Your task to perform on an android device: turn on notifications settings in the gmail app Image 0: 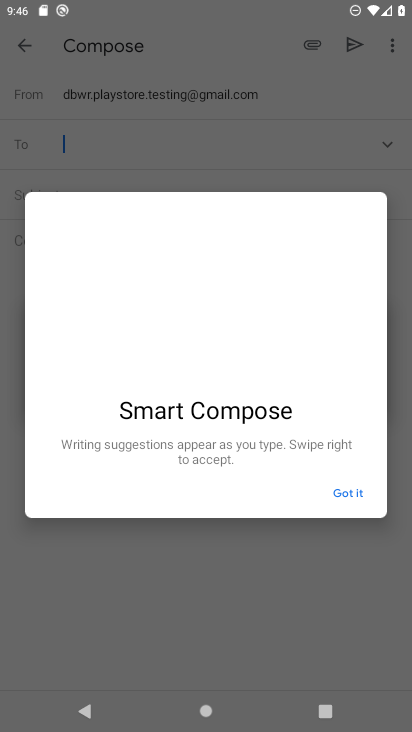
Step 0: press home button
Your task to perform on an android device: turn on notifications settings in the gmail app Image 1: 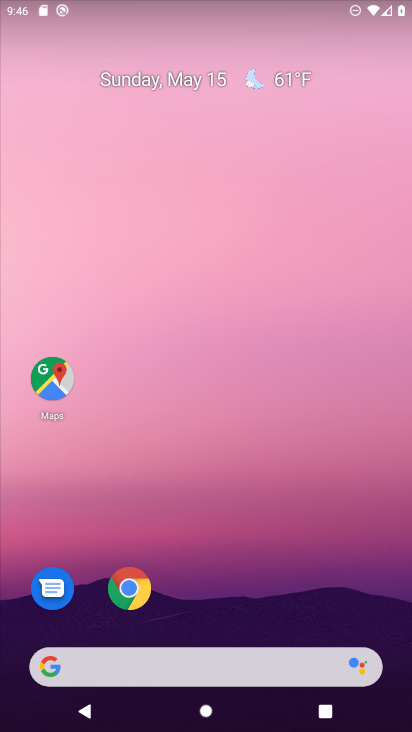
Step 1: drag from (221, 524) to (347, 5)
Your task to perform on an android device: turn on notifications settings in the gmail app Image 2: 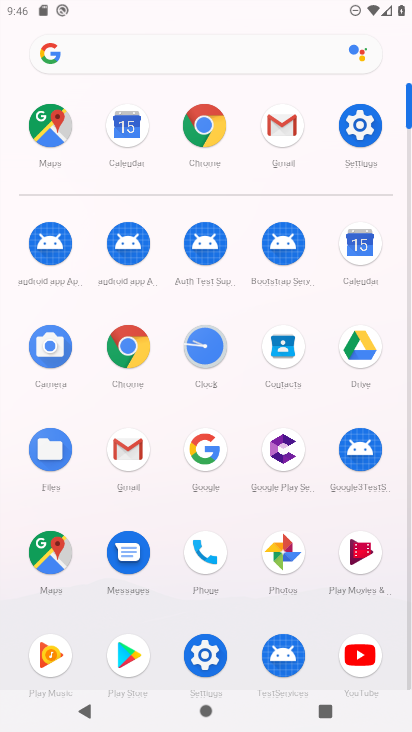
Step 2: click (280, 132)
Your task to perform on an android device: turn on notifications settings in the gmail app Image 3: 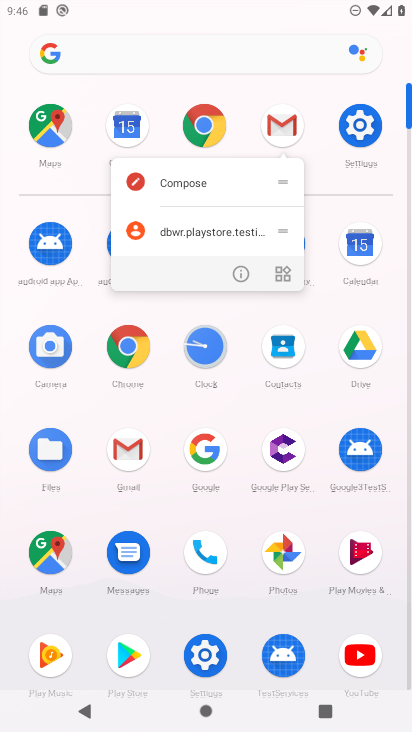
Step 3: click (118, 449)
Your task to perform on an android device: turn on notifications settings in the gmail app Image 4: 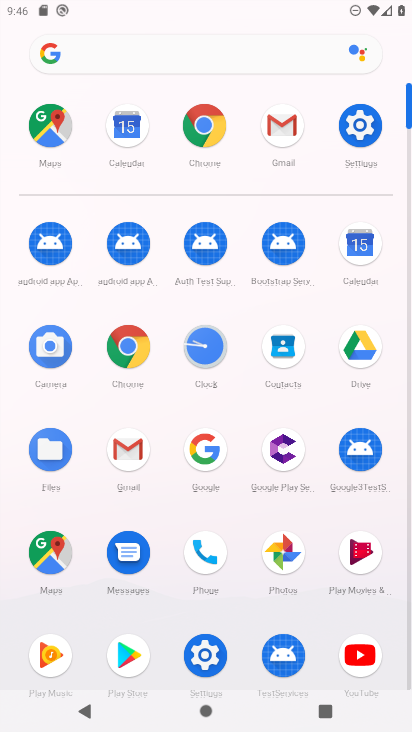
Step 4: click (123, 450)
Your task to perform on an android device: turn on notifications settings in the gmail app Image 5: 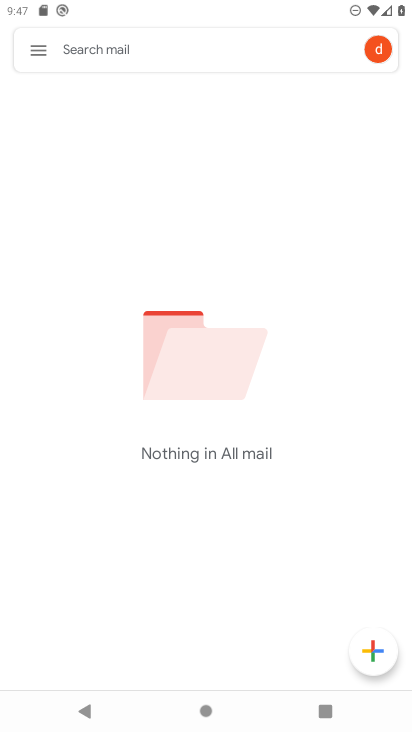
Step 5: click (40, 47)
Your task to perform on an android device: turn on notifications settings in the gmail app Image 6: 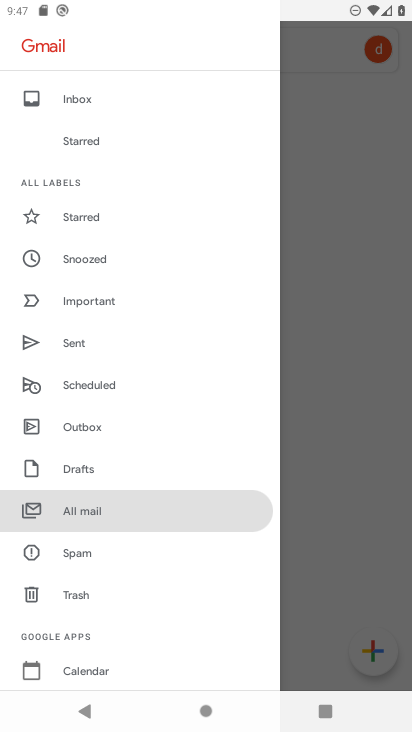
Step 6: drag from (120, 638) to (185, 327)
Your task to perform on an android device: turn on notifications settings in the gmail app Image 7: 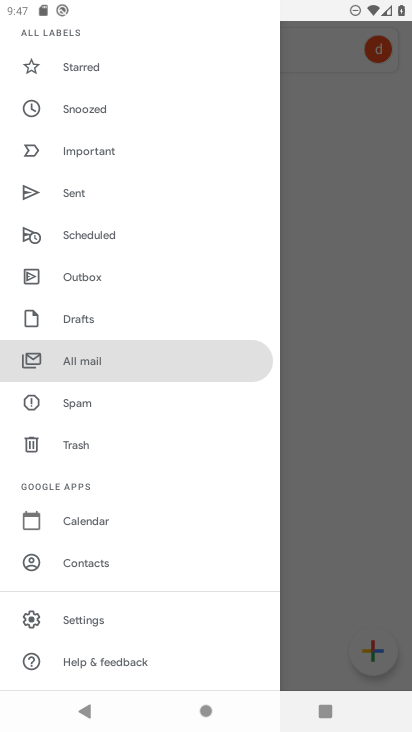
Step 7: click (103, 616)
Your task to perform on an android device: turn on notifications settings in the gmail app Image 8: 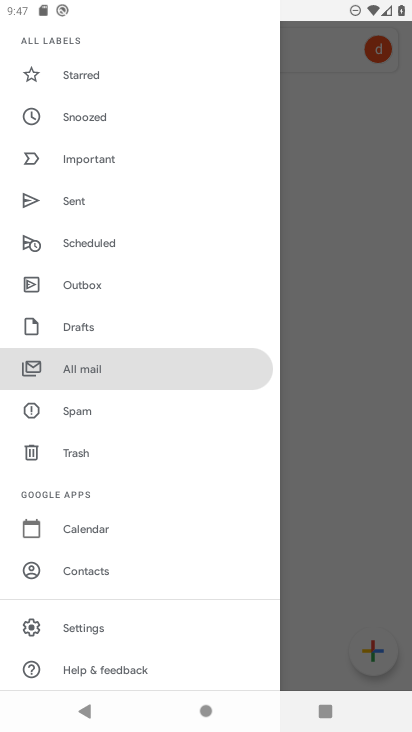
Step 8: click (88, 628)
Your task to perform on an android device: turn on notifications settings in the gmail app Image 9: 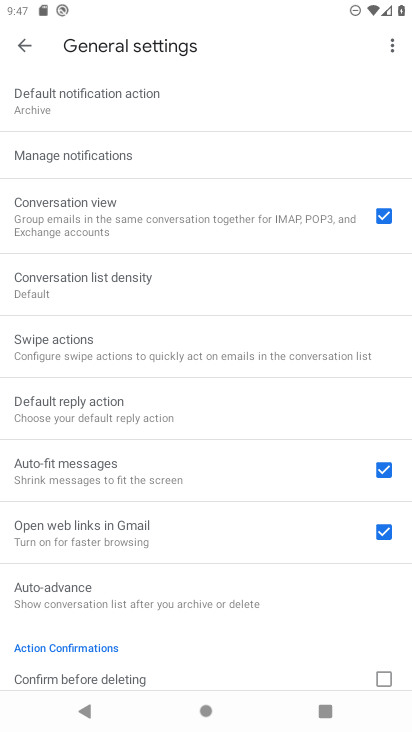
Step 9: click (82, 155)
Your task to perform on an android device: turn on notifications settings in the gmail app Image 10: 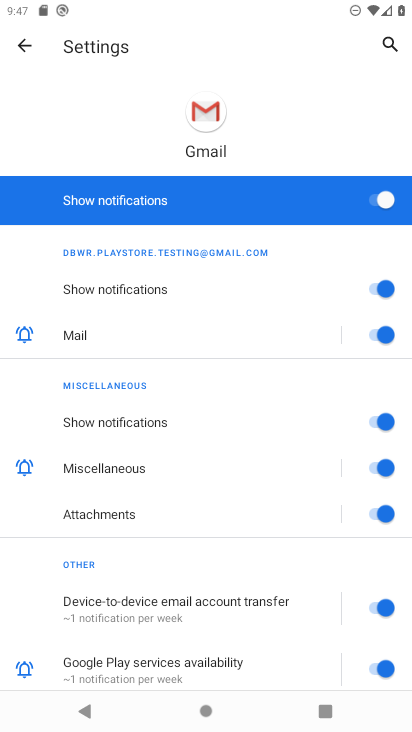
Step 10: task complete